Your task to perform on an android device: Look up the best rated video games on bestbuy.com Image 0: 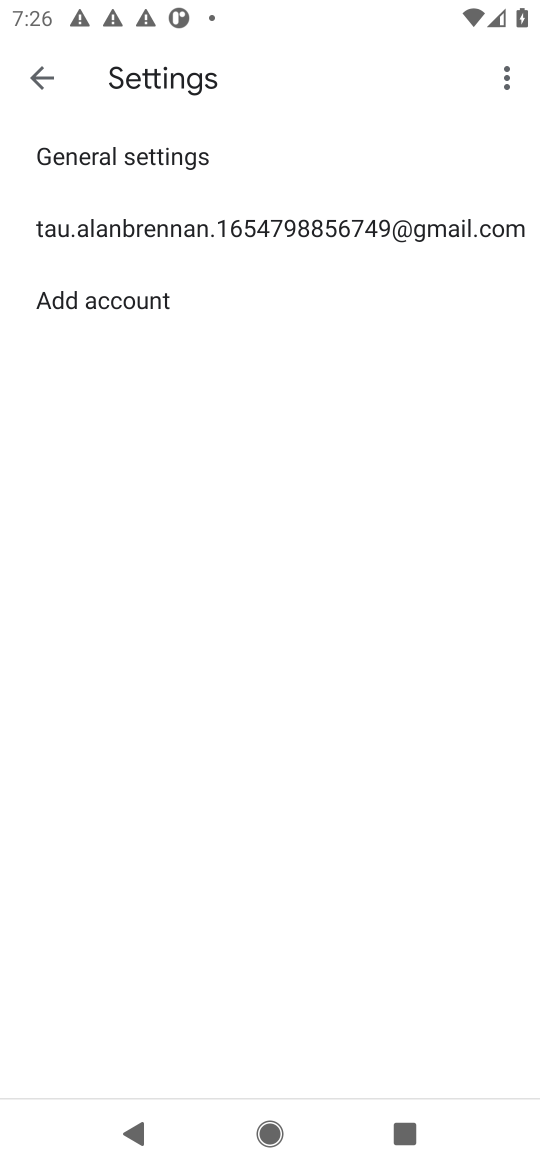
Step 0: press home button
Your task to perform on an android device: Look up the best rated video games on bestbuy.com Image 1: 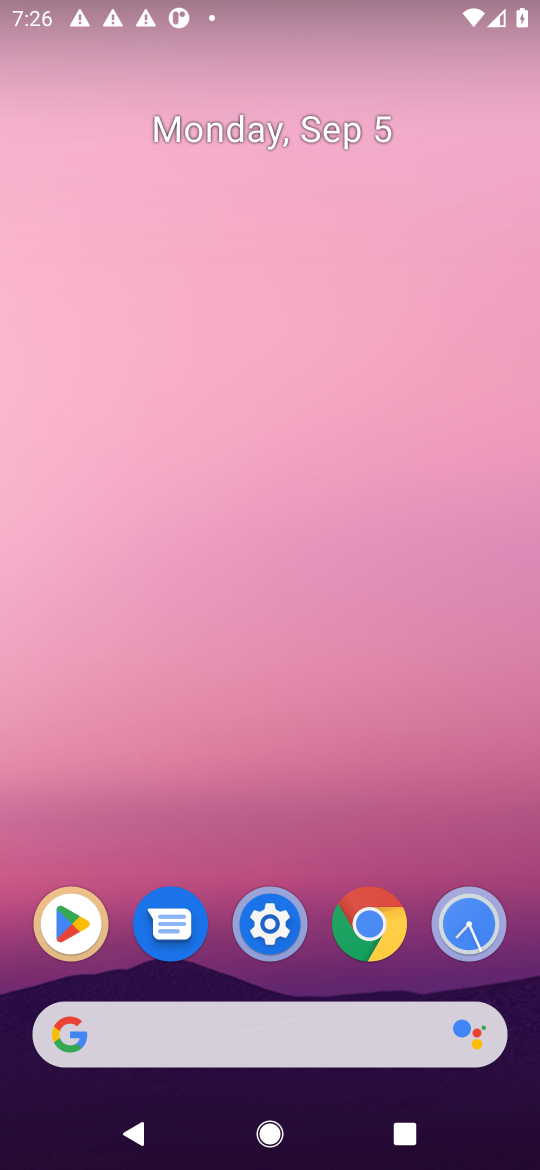
Step 1: click (329, 1033)
Your task to perform on an android device: Look up the best rated video games on bestbuy.com Image 2: 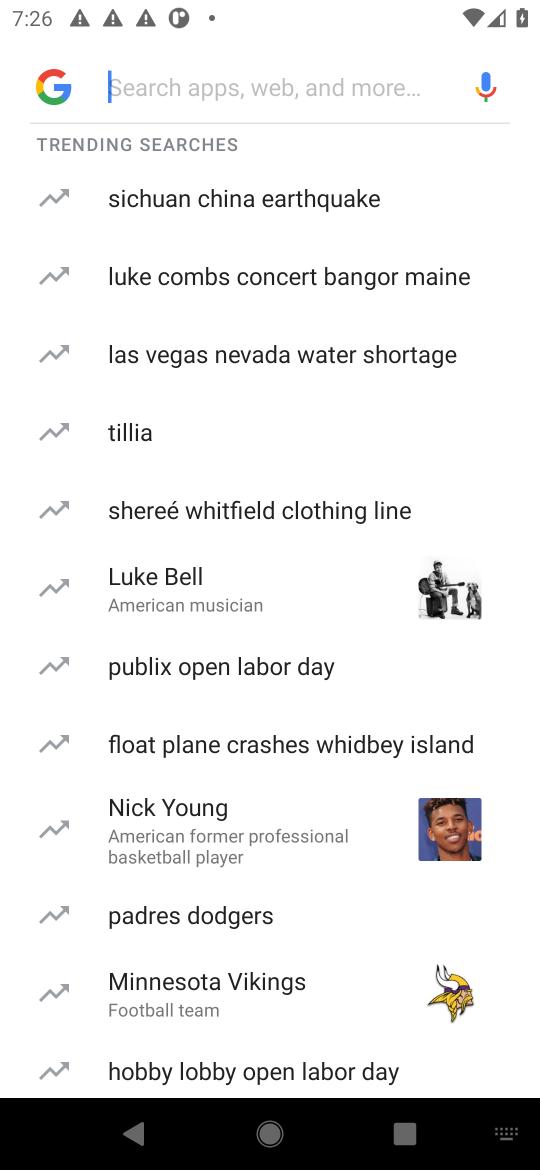
Step 2: type "bestbuy.com"
Your task to perform on an android device: Look up the best rated video games on bestbuy.com Image 3: 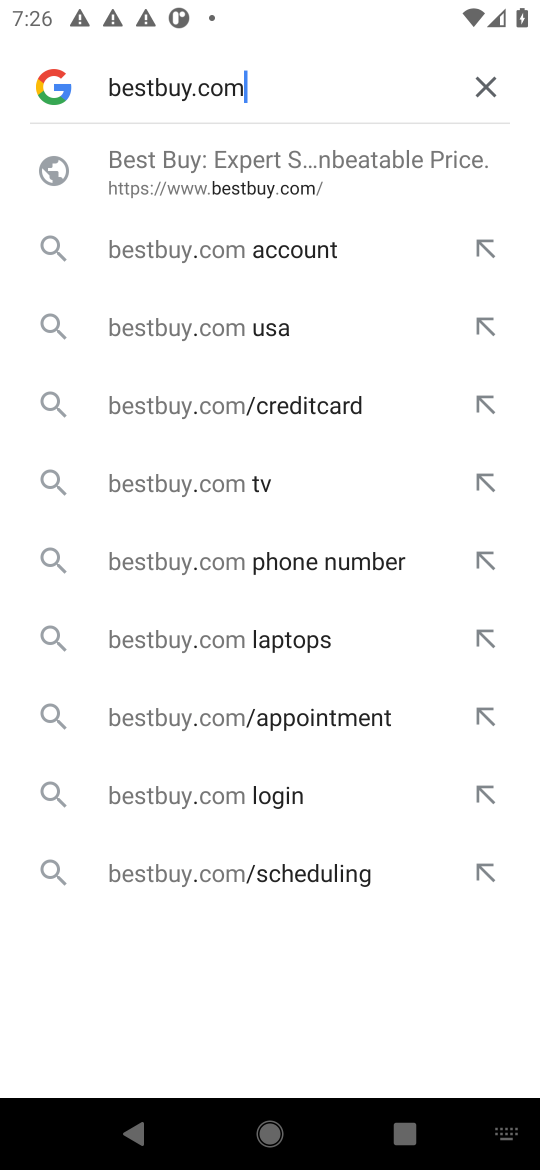
Step 3: press enter
Your task to perform on an android device: Look up the best rated video games on bestbuy.com Image 4: 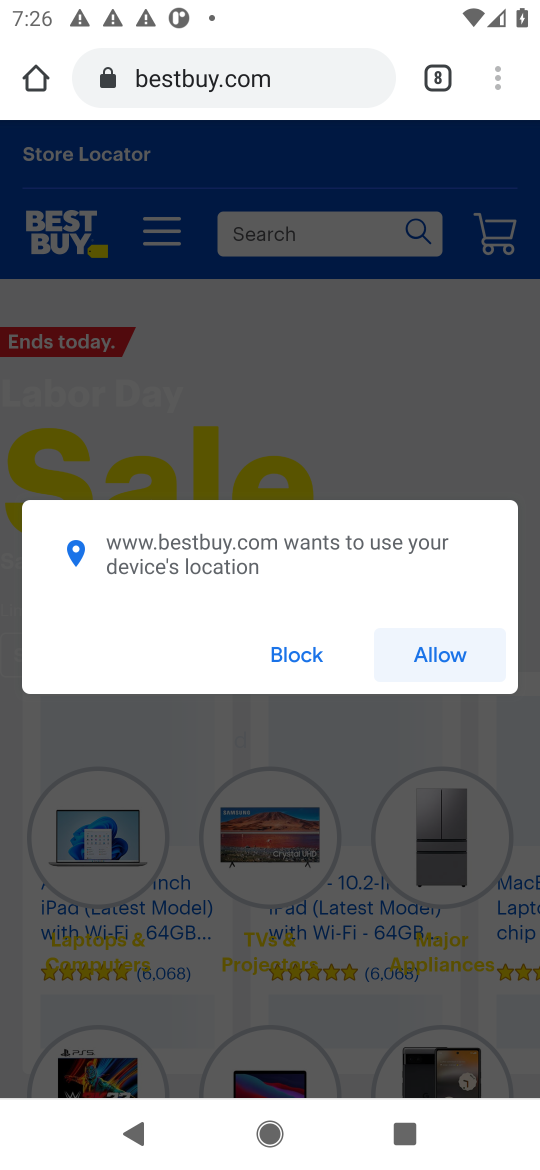
Step 4: click (295, 660)
Your task to perform on an android device: Look up the best rated video games on bestbuy.com Image 5: 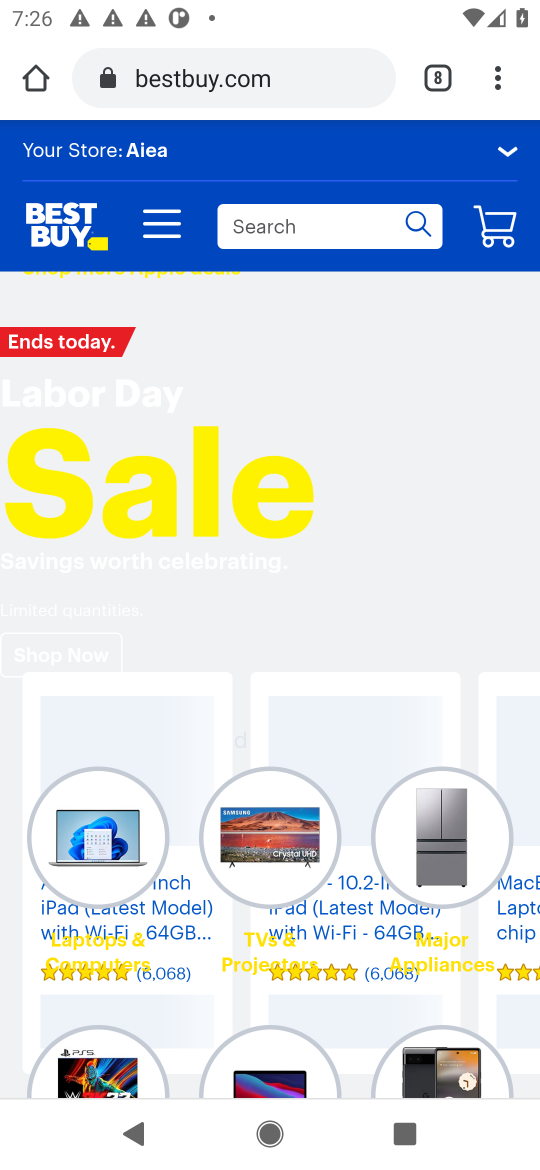
Step 5: click (300, 217)
Your task to perform on an android device: Look up the best rated video games on bestbuy.com Image 6: 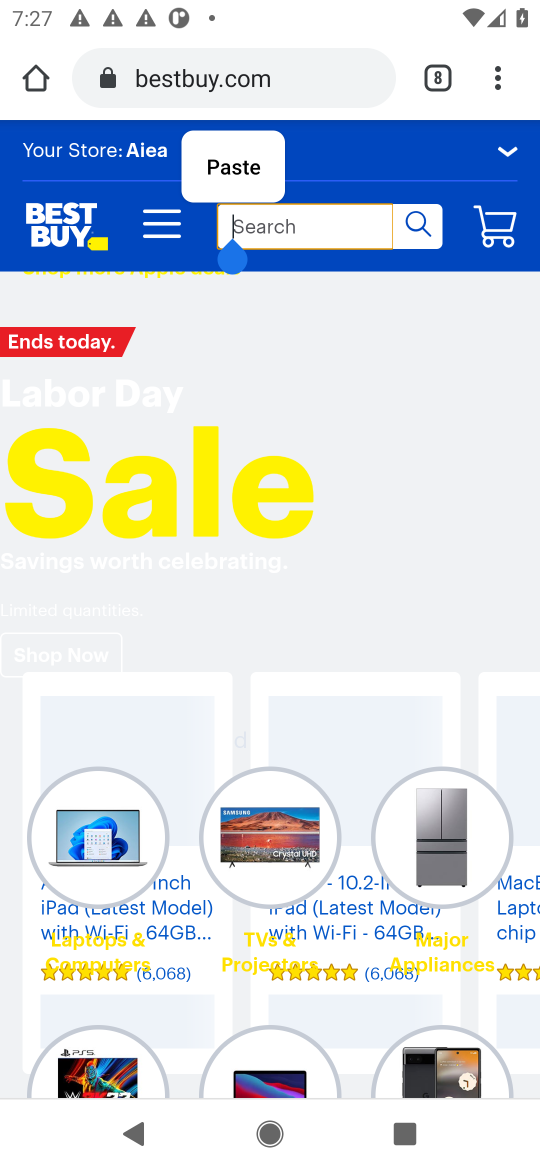
Step 6: press enter
Your task to perform on an android device: Look up the best rated video games on bestbuy.com Image 7: 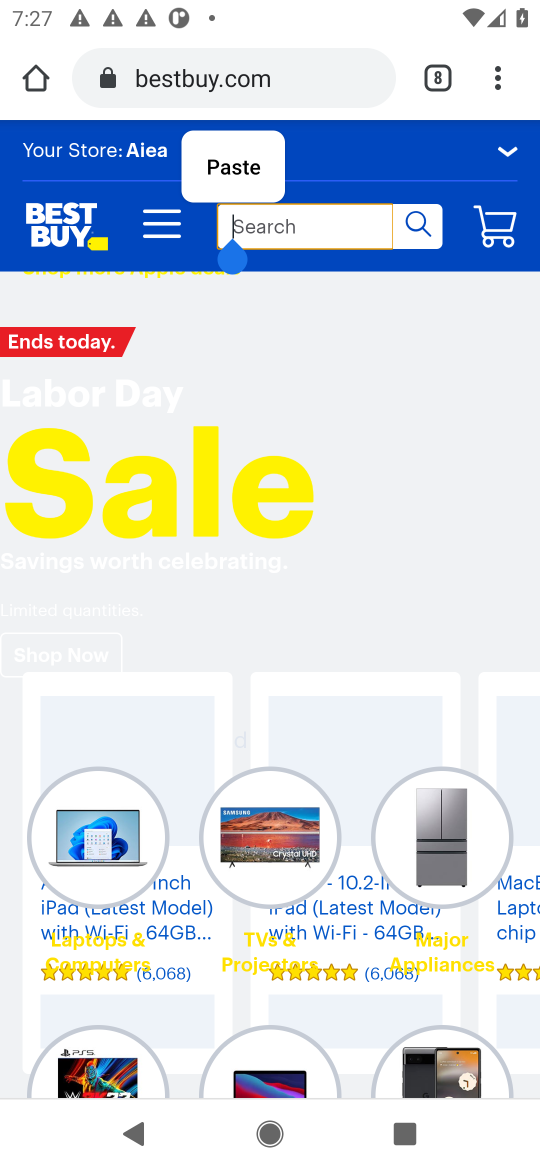
Step 7: type "best rated video games"
Your task to perform on an android device: Look up the best rated video games on bestbuy.com Image 8: 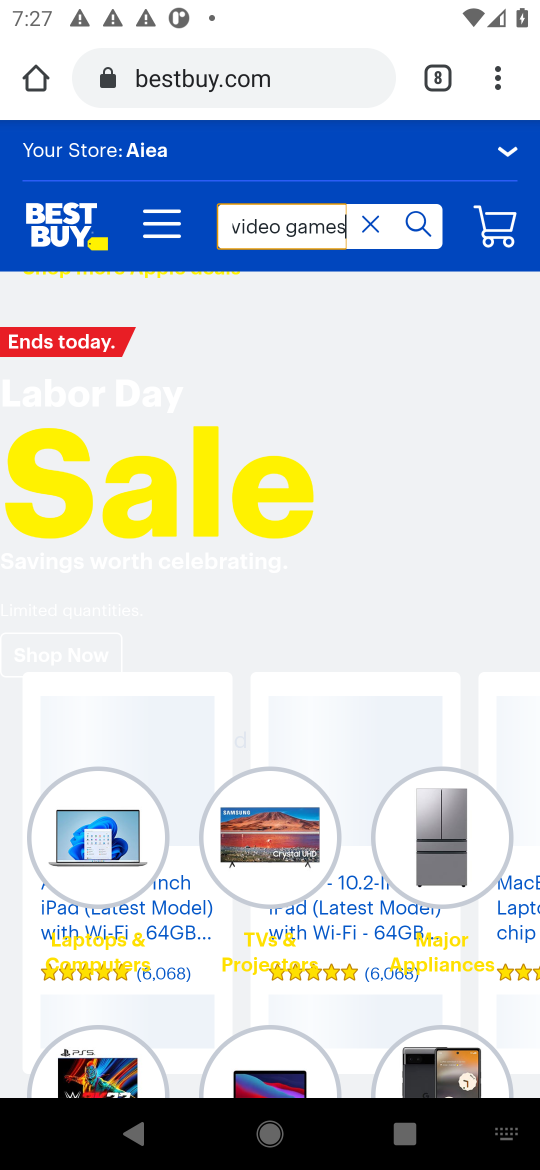
Step 8: click (417, 219)
Your task to perform on an android device: Look up the best rated video games on bestbuy.com Image 9: 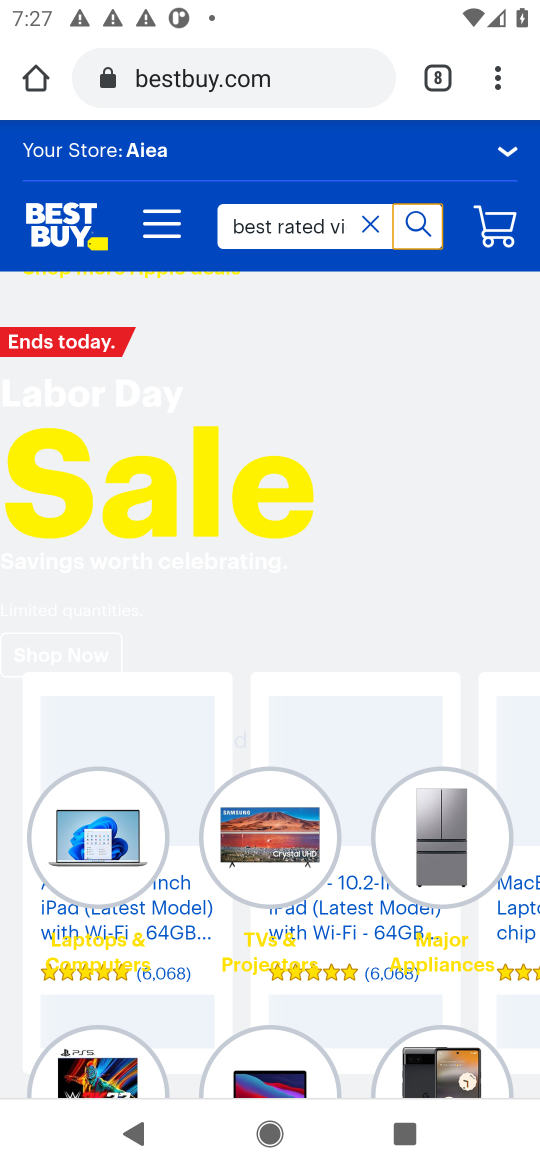
Step 9: click (418, 214)
Your task to perform on an android device: Look up the best rated video games on bestbuy.com Image 10: 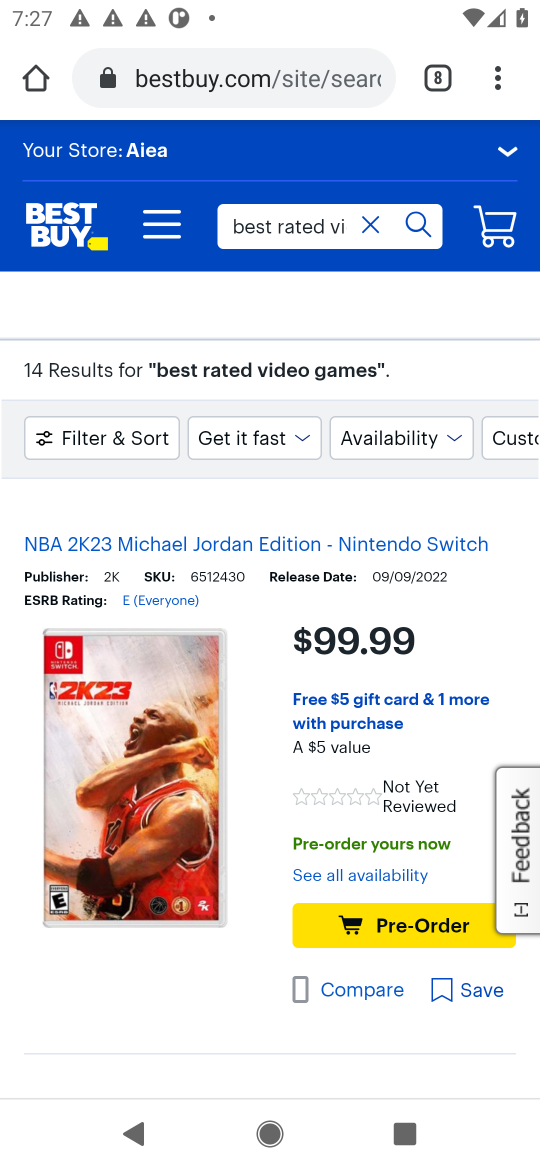
Step 10: task complete